Your task to perform on an android device: toggle notification dots Image 0: 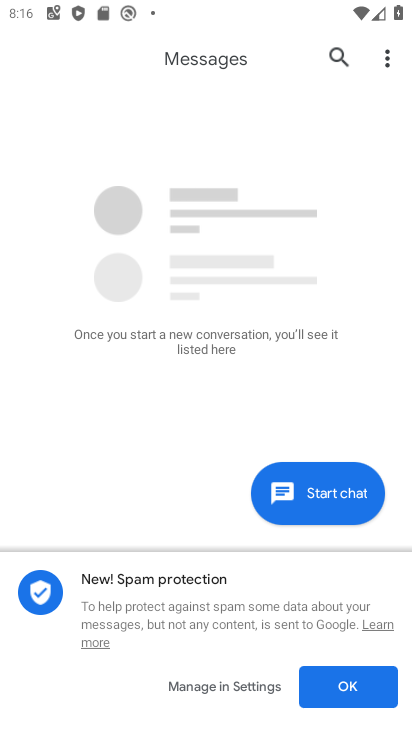
Step 0: press home button
Your task to perform on an android device: toggle notification dots Image 1: 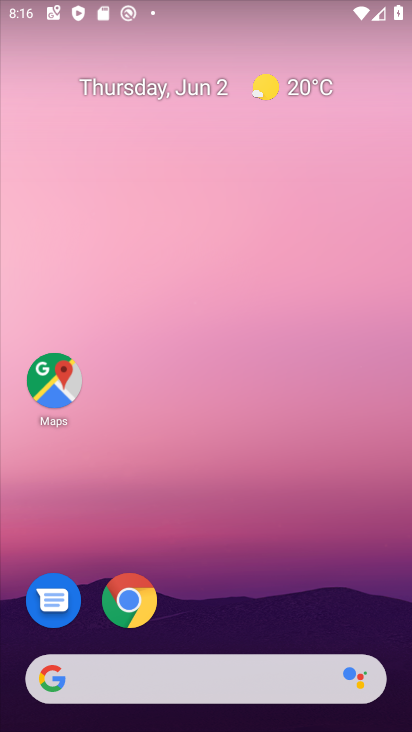
Step 1: drag from (365, 611) to (367, 264)
Your task to perform on an android device: toggle notification dots Image 2: 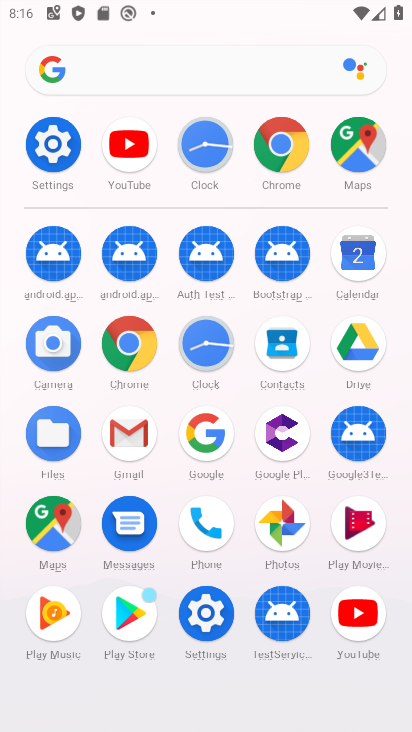
Step 2: click (208, 632)
Your task to perform on an android device: toggle notification dots Image 3: 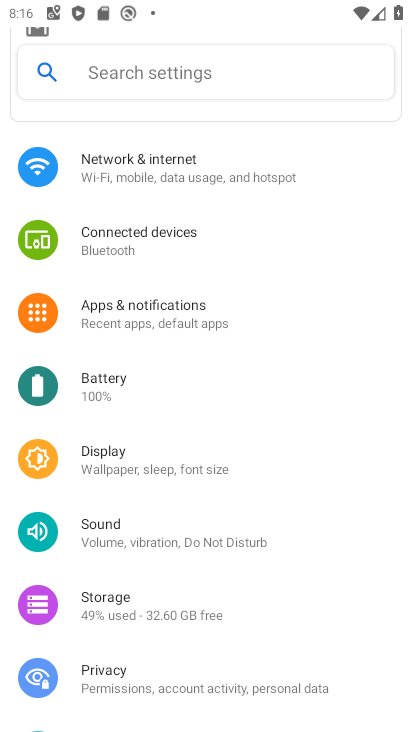
Step 3: drag from (313, 606) to (324, 382)
Your task to perform on an android device: toggle notification dots Image 4: 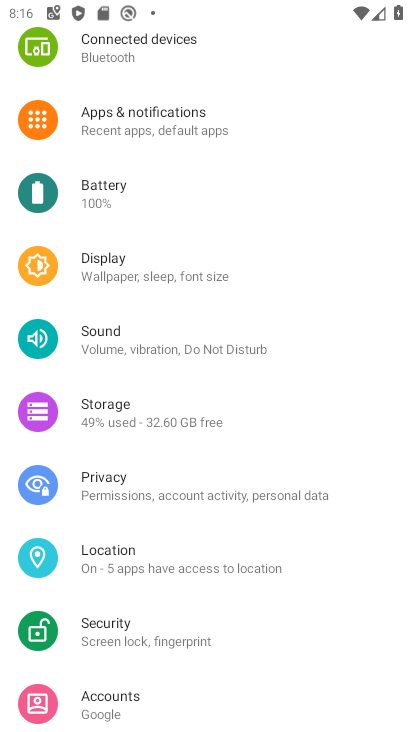
Step 4: drag from (345, 600) to (348, 510)
Your task to perform on an android device: toggle notification dots Image 5: 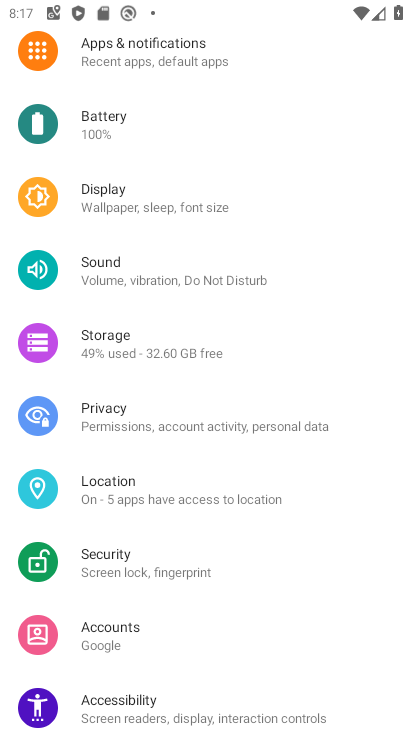
Step 5: drag from (346, 596) to (353, 485)
Your task to perform on an android device: toggle notification dots Image 6: 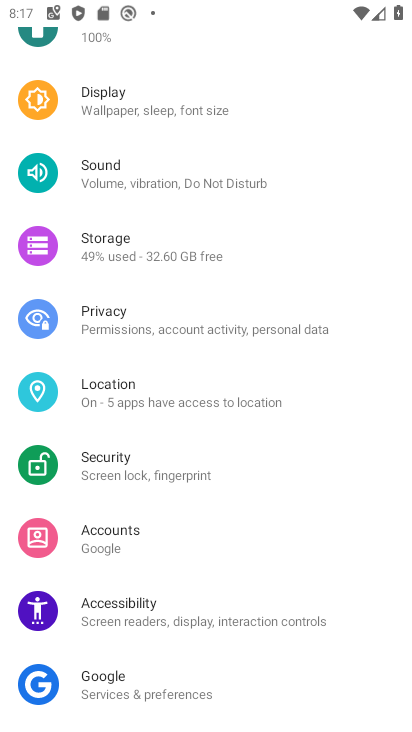
Step 6: drag from (371, 559) to (380, 410)
Your task to perform on an android device: toggle notification dots Image 7: 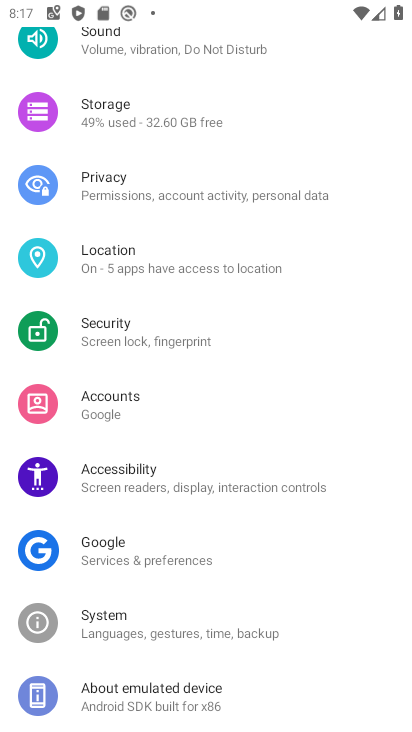
Step 7: drag from (361, 301) to (363, 402)
Your task to perform on an android device: toggle notification dots Image 8: 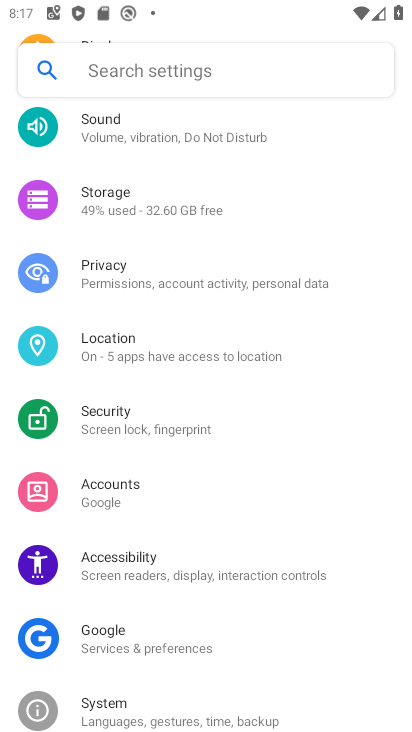
Step 8: drag from (375, 292) to (371, 401)
Your task to perform on an android device: toggle notification dots Image 9: 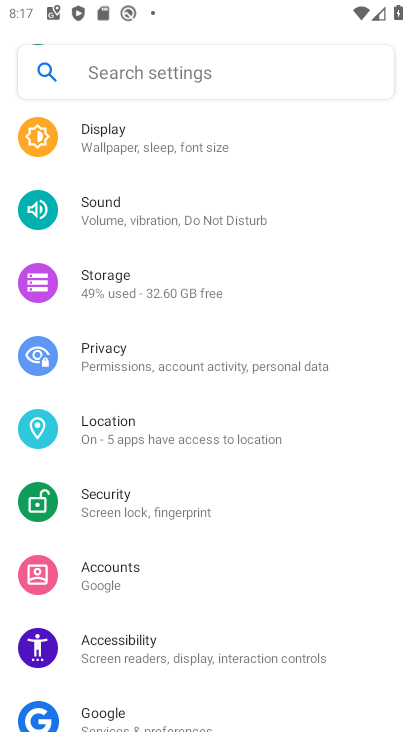
Step 9: drag from (362, 265) to (355, 396)
Your task to perform on an android device: toggle notification dots Image 10: 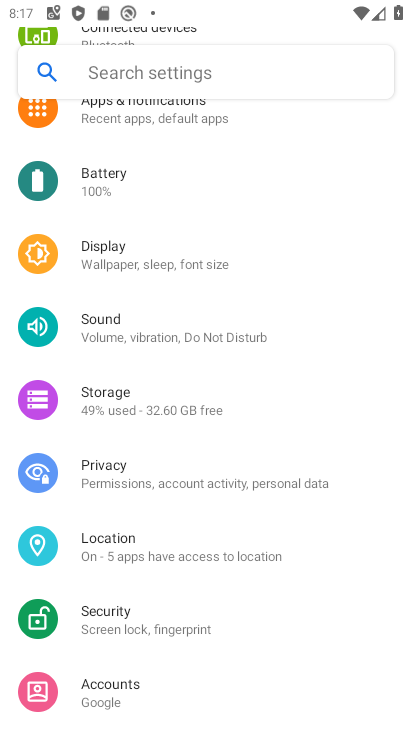
Step 10: drag from (339, 234) to (331, 376)
Your task to perform on an android device: toggle notification dots Image 11: 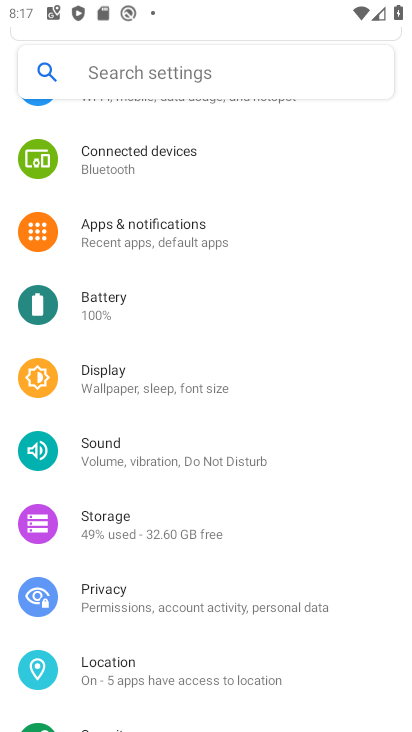
Step 11: drag from (316, 249) to (321, 471)
Your task to perform on an android device: toggle notification dots Image 12: 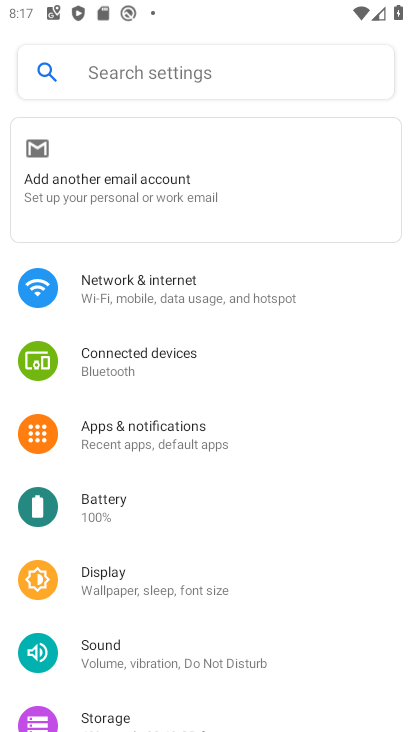
Step 12: click (187, 451)
Your task to perform on an android device: toggle notification dots Image 13: 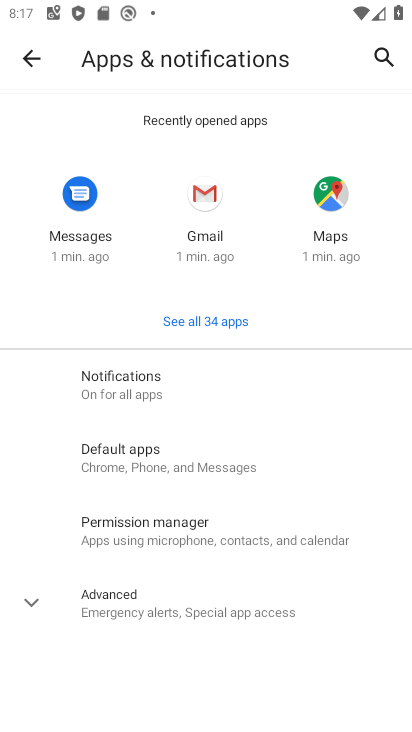
Step 13: click (138, 614)
Your task to perform on an android device: toggle notification dots Image 14: 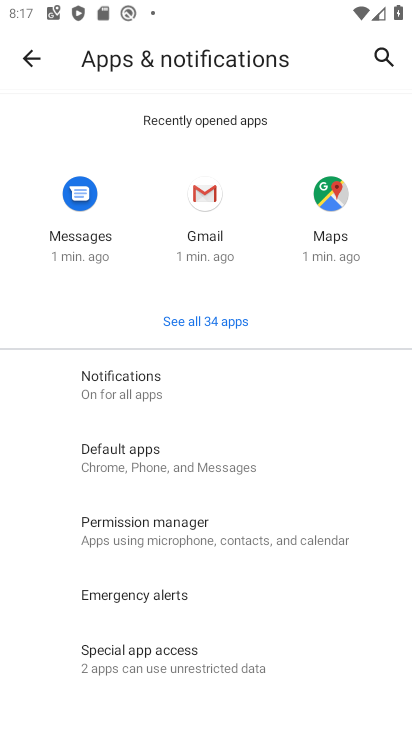
Step 14: drag from (273, 606) to (287, 420)
Your task to perform on an android device: toggle notification dots Image 15: 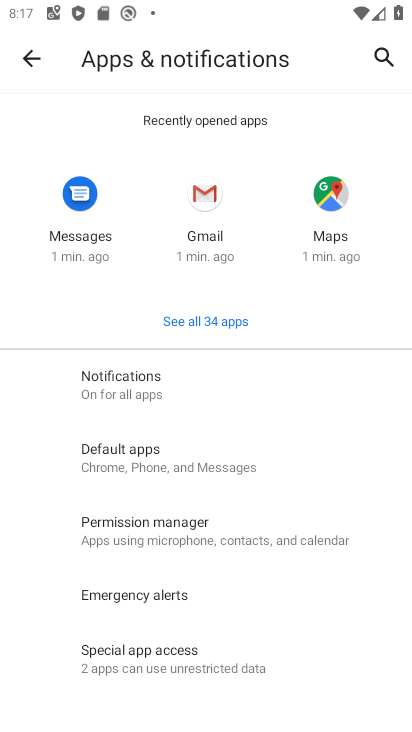
Step 15: click (129, 392)
Your task to perform on an android device: toggle notification dots Image 16: 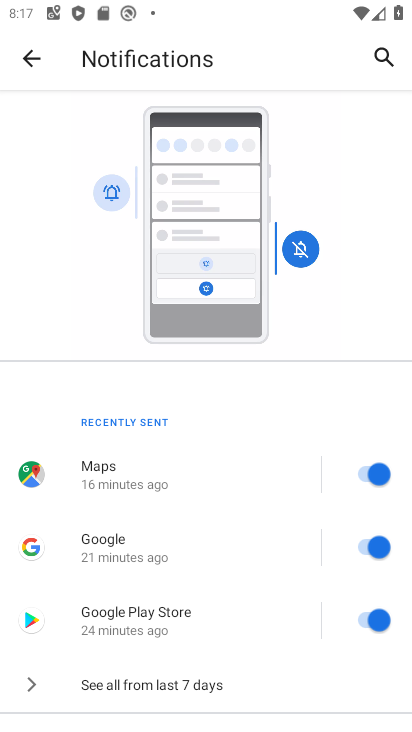
Step 16: drag from (265, 587) to (270, 420)
Your task to perform on an android device: toggle notification dots Image 17: 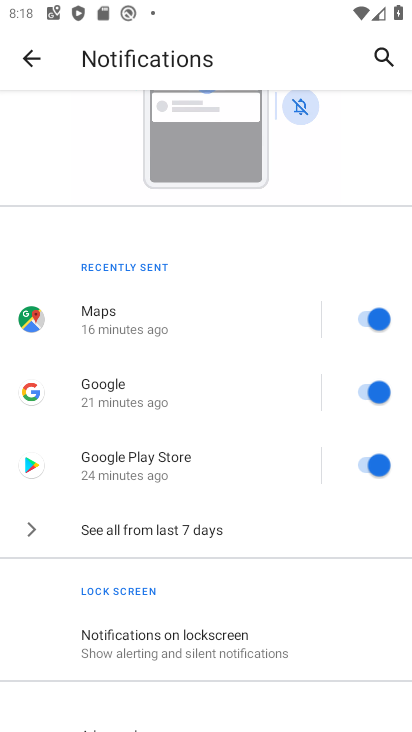
Step 17: drag from (269, 587) to (275, 436)
Your task to perform on an android device: toggle notification dots Image 18: 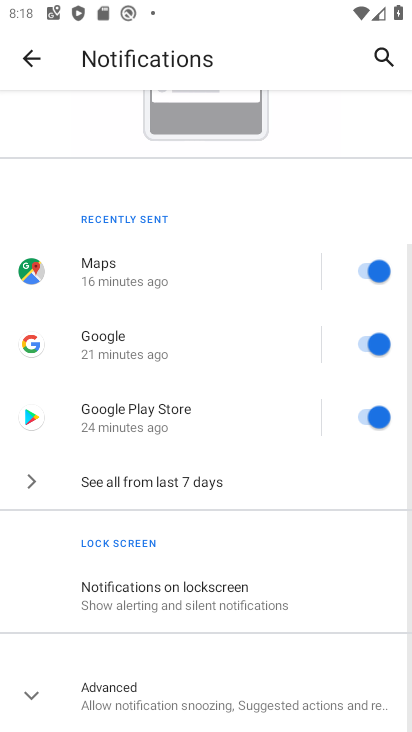
Step 18: click (242, 699)
Your task to perform on an android device: toggle notification dots Image 19: 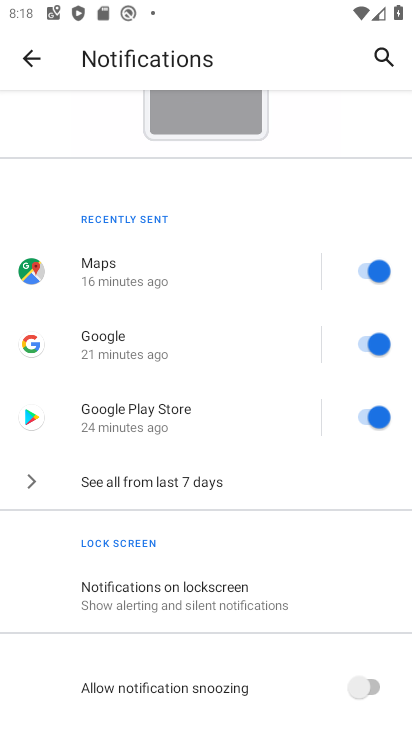
Step 19: drag from (278, 655) to (289, 479)
Your task to perform on an android device: toggle notification dots Image 20: 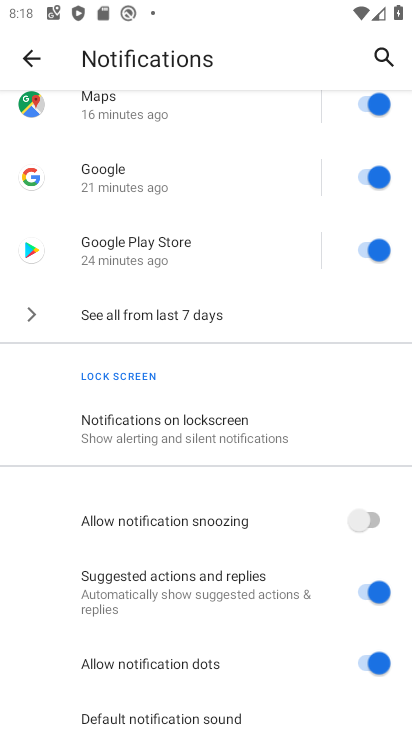
Step 20: drag from (302, 634) to (307, 464)
Your task to perform on an android device: toggle notification dots Image 21: 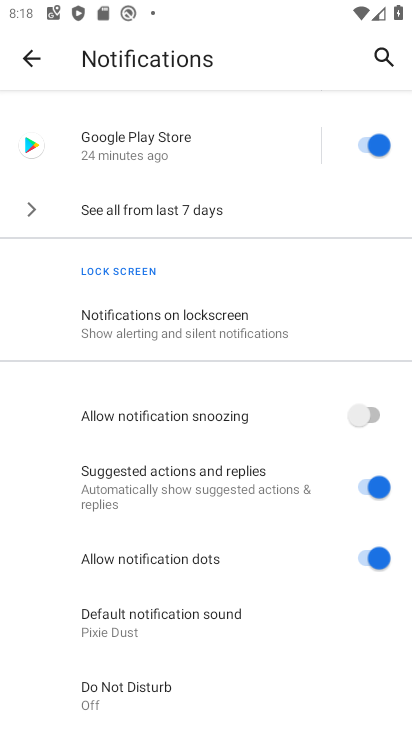
Step 21: click (370, 545)
Your task to perform on an android device: toggle notification dots Image 22: 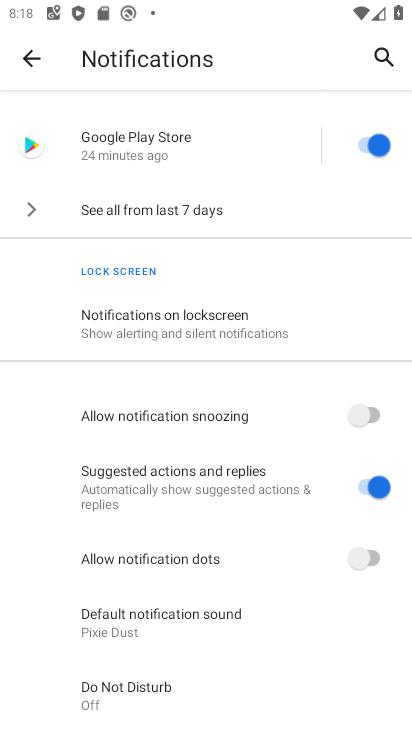
Step 22: task complete